Your task to perform on an android device: Toggle the flashlight Image 0: 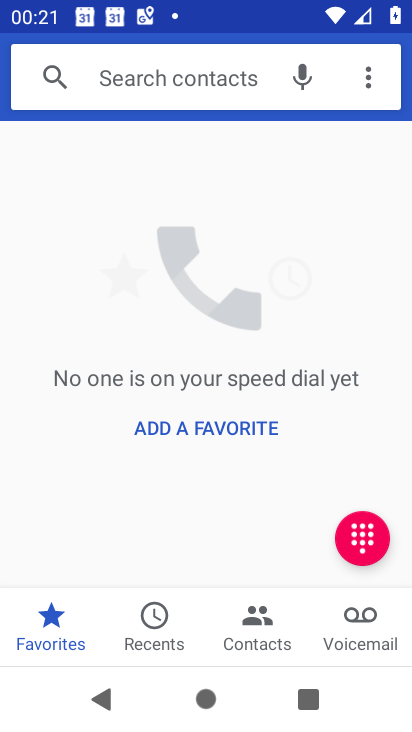
Step 0: press home button
Your task to perform on an android device: Toggle the flashlight Image 1: 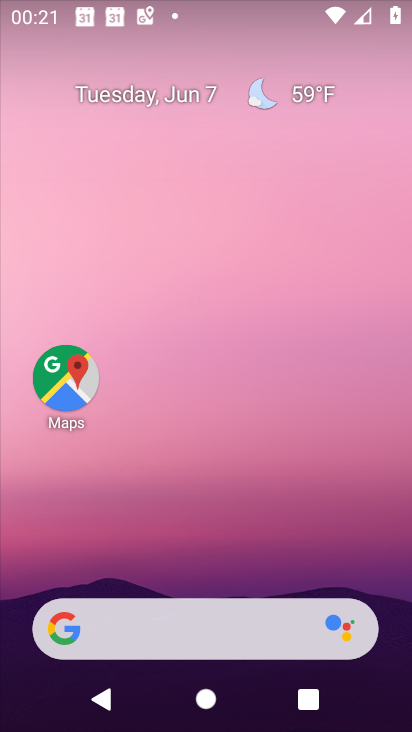
Step 1: drag from (221, 568) to (177, 61)
Your task to perform on an android device: Toggle the flashlight Image 2: 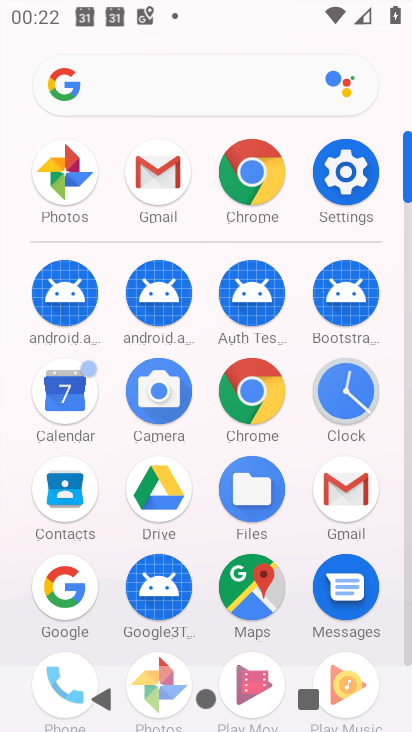
Step 2: click (343, 176)
Your task to perform on an android device: Toggle the flashlight Image 3: 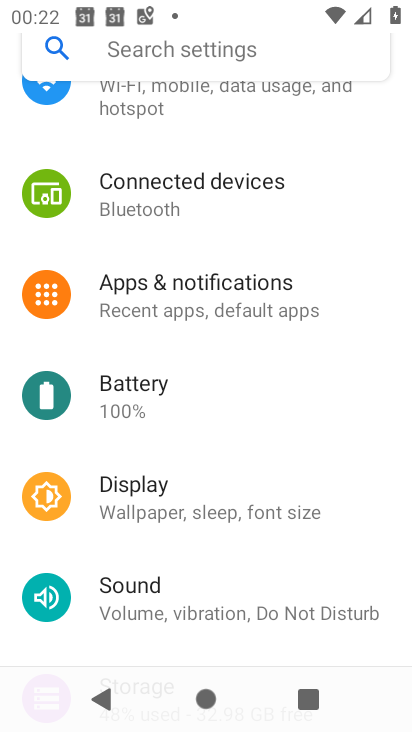
Step 3: drag from (225, 247) to (224, 412)
Your task to perform on an android device: Toggle the flashlight Image 4: 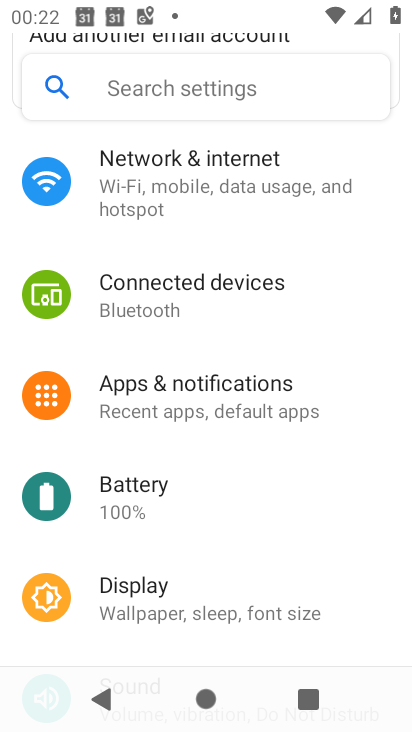
Step 4: click (173, 81)
Your task to perform on an android device: Toggle the flashlight Image 5: 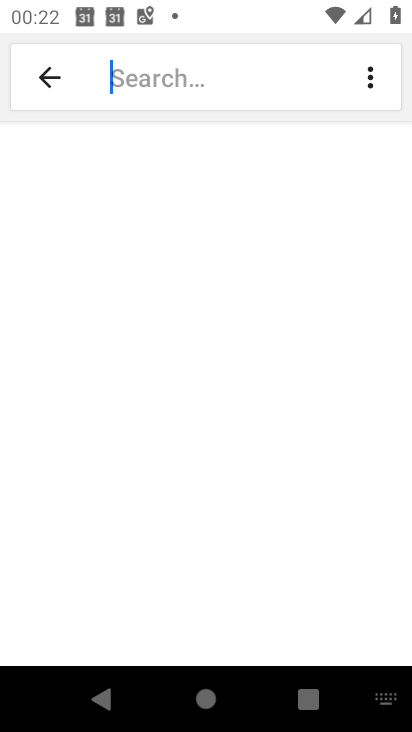
Step 5: type "flash"
Your task to perform on an android device: Toggle the flashlight Image 6: 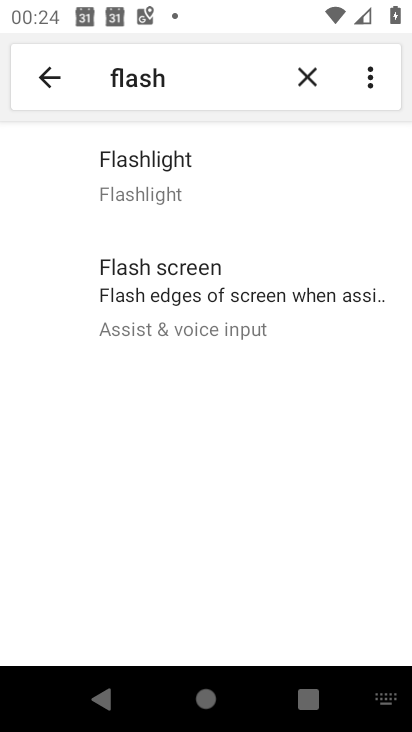
Step 6: task complete